Your task to perform on an android device: turn on improve location accuracy Image 0: 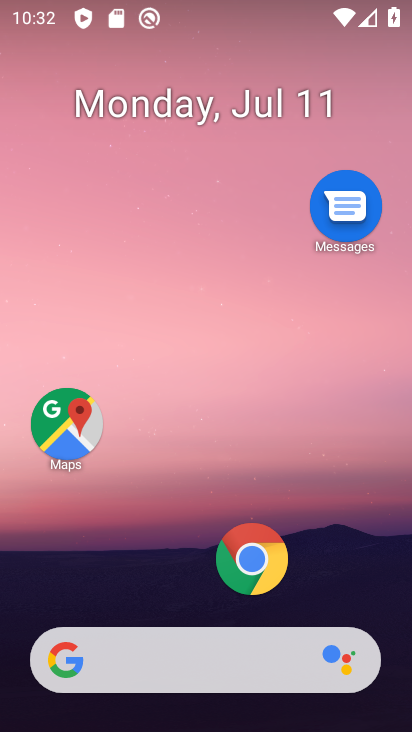
Step 0: drag from (363, 587) to (372, 182)
Your task to perform on an android device: turn on improve location accuracy Image 1: 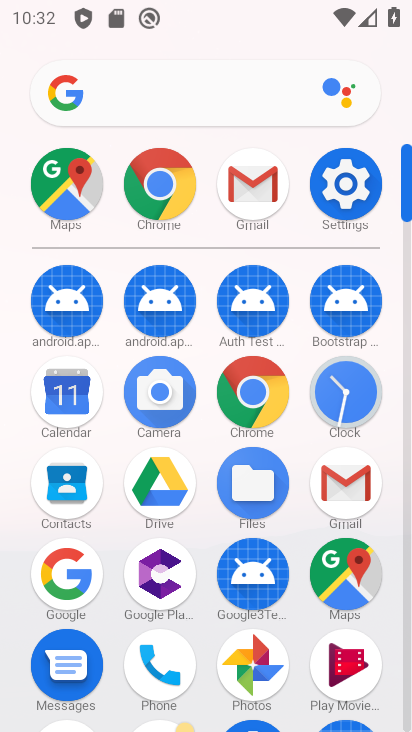
Step 1: click (350, 185)
Your task to perform on an android device: turn on improve location accuracy Image 2: 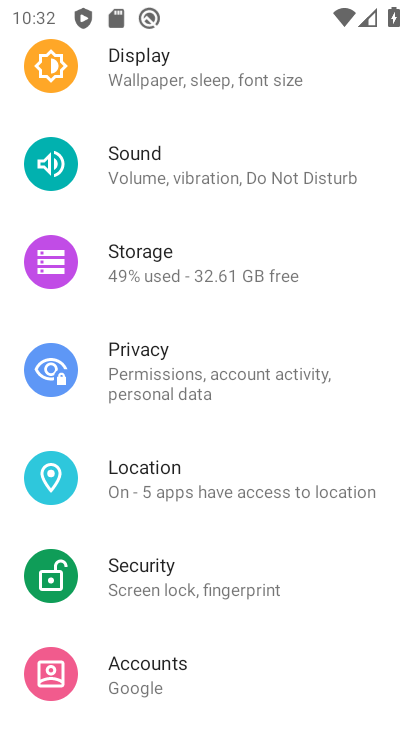
Step 2: drag from (351, 256) to (354, 357)
Your task to perform on an android device: turn on improve location accuracy Image 3: 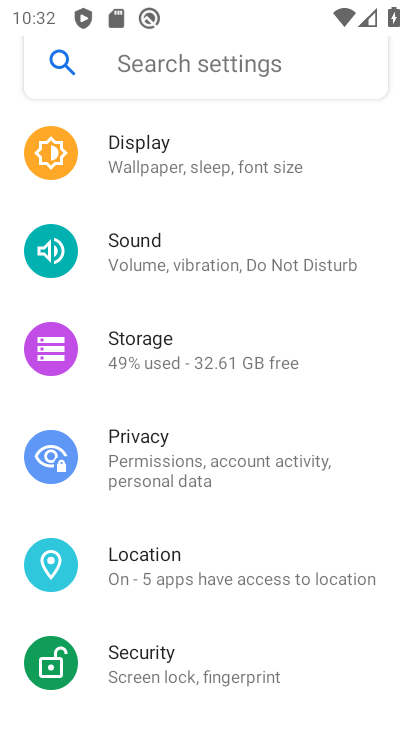
Step 3: drag from (351, 282) to (358, 383)
Your task to perform on an android device: turn on improve location accuracy Image 4: 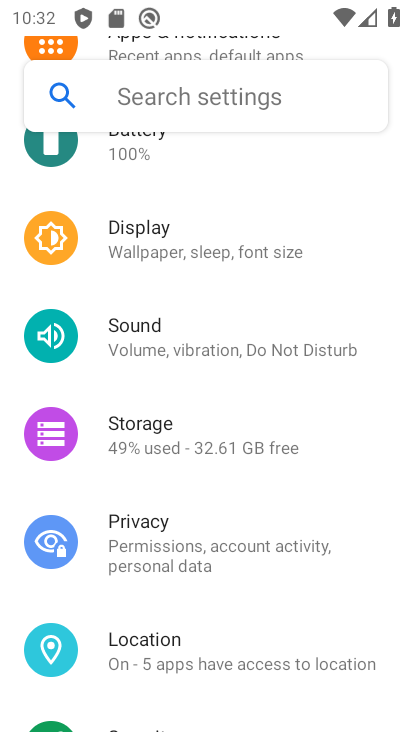
Step 4: drag from (349, 297) to (346, 426)
Your task to perform on an android device: turn on improve location accuracy Image 5: 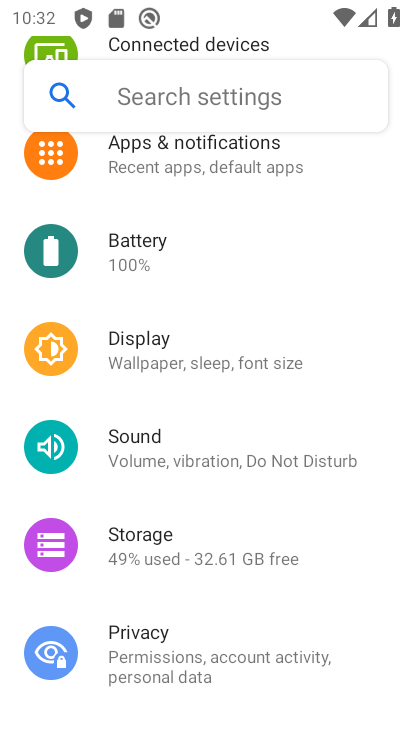
Step 5: drag from (324, 344) to (326, 453)
Your task to perform on an android device: turn on improve location accuracy Image 6: 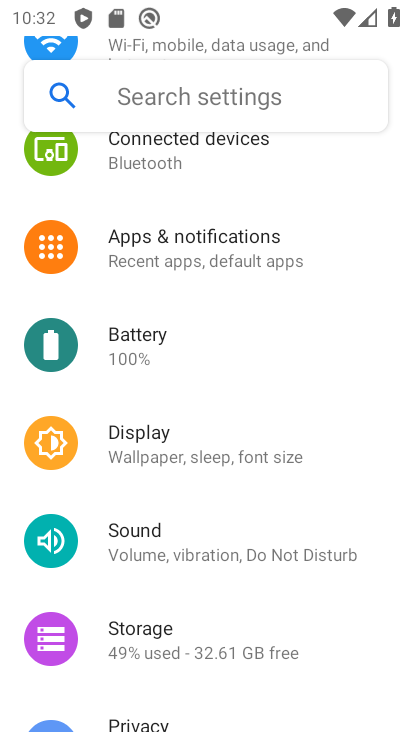
Step 6: drag from (322, 341) to (335, 584)
Your task to perform on an android device: turn on improve location accuracy Image 7: 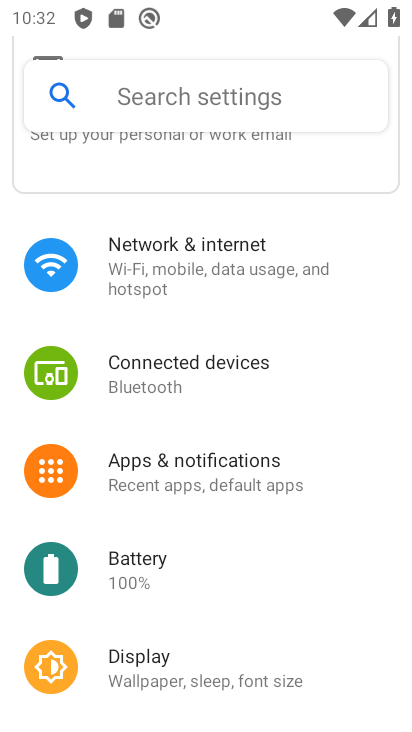
Step 7: drag from (337, 356) to (351, 548)
Your task to perform on an android device: turn on improve location accuracy Image 8: 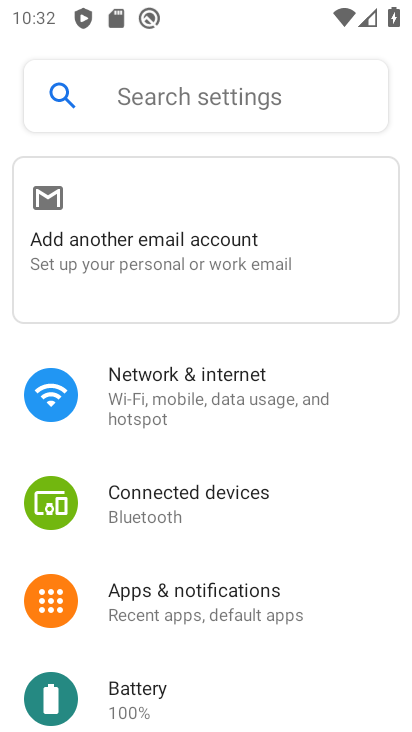
Step 8: drag from (336, 388) to (329, 514)
Your task to perform on an android device: turn on improve location accuracy Image 9: 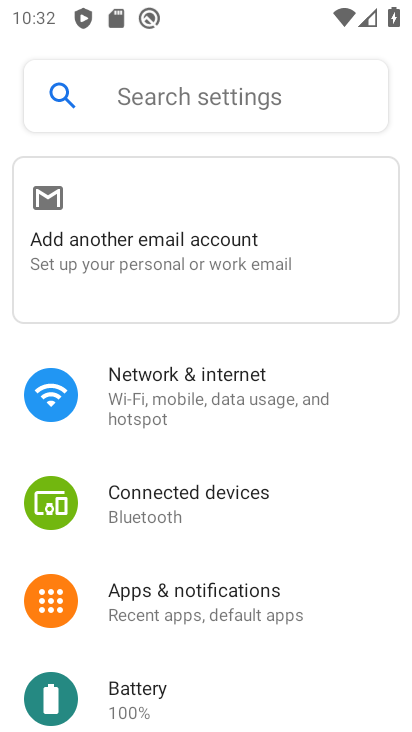
Step 9: drag from (323, 565) to (327, 431)
Your task to perform on an android device: turn on improve location accuracy Image 10: 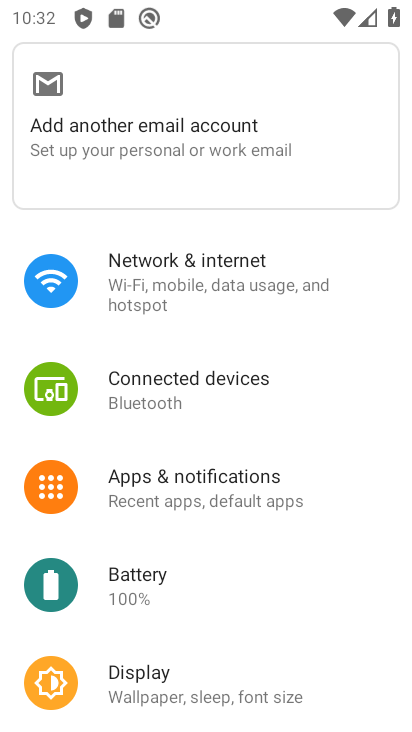
Step 10: drag from (320, 576) to (337, 433)
Your task to perform on an android device: turn on improve location accuracy Image 11: 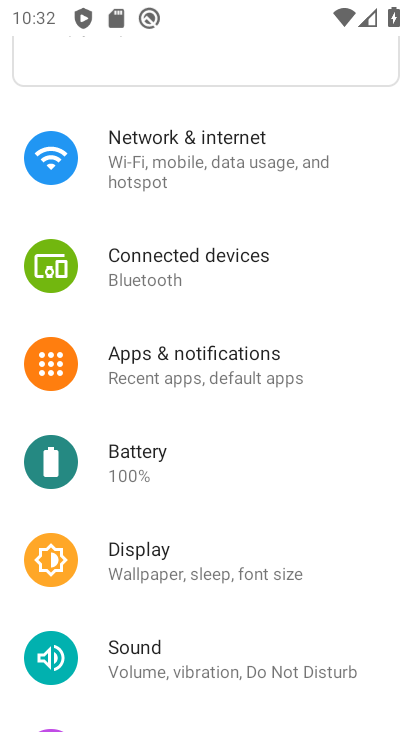
Step 11: drag from (348, 588) to (353, 441)
Your task to perform on an android device: turn on improve location accuracy Image 12: 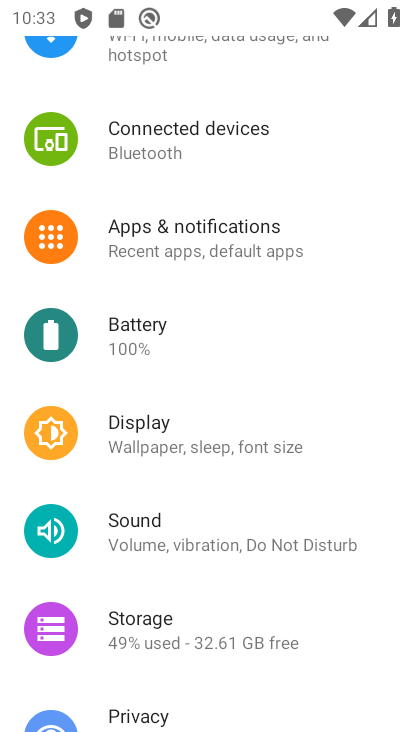
Step 12: drag from (354, 627) to (351, 390)
Your task to perform on an android device: turn on improve location accuracy Image 13: 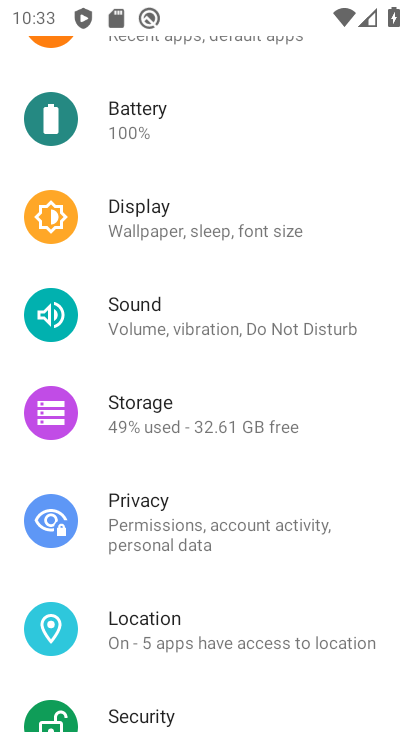
Step 13: click (330, 634)
Your task to perform on an android device: turn on improve location accuracy Image 14: 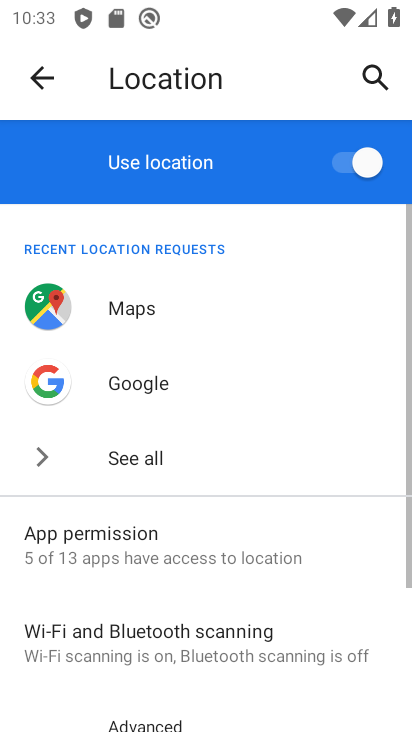
Step 14: drag from (311, 522) to (309, 364)
Your task to perform on an android device: turn on improve location accuracy Image 15: 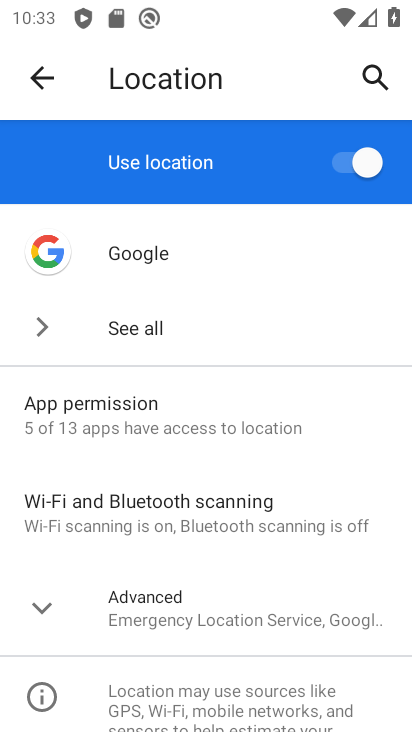
Step 15: drag from (308, 549) to (310, 389)
Your task to perform on an android device: turn on improve location accuracy Image 16: 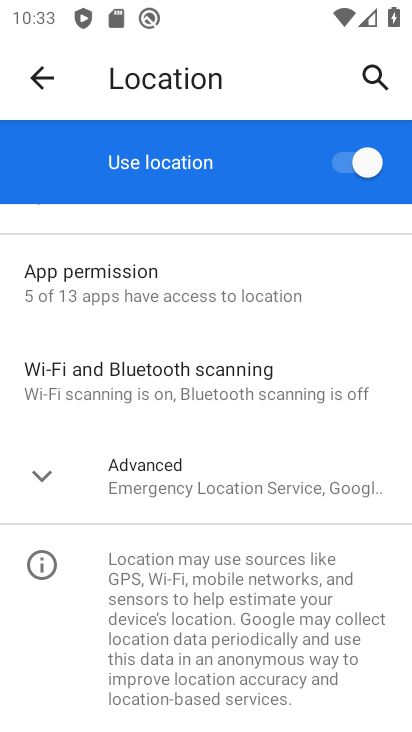
Step 16: click (302, 478)
Your task to perform on an android device: turn on improve location accuracy Image 17: 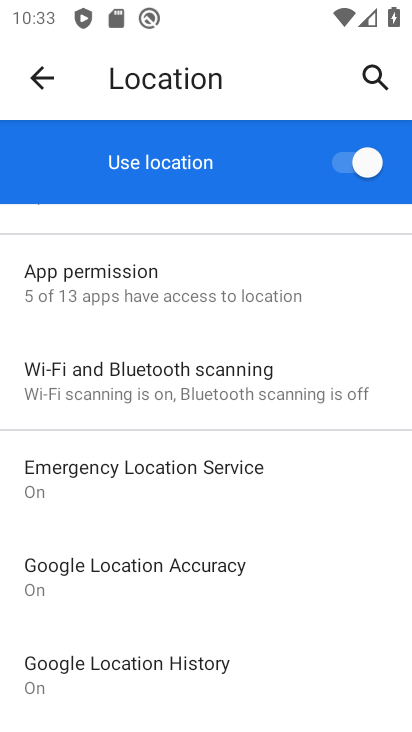
Step 17: drag from (308, 545) to (313, 385)
Your task to perform on an android device: turn on improve location accuracy Image 18: 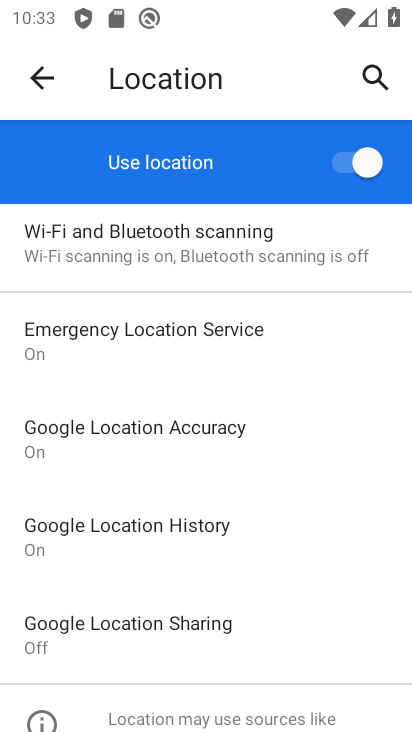
Step 18: click (238, 430)
Your task to perform on an android device: turn on improve location accuracy Image 19: 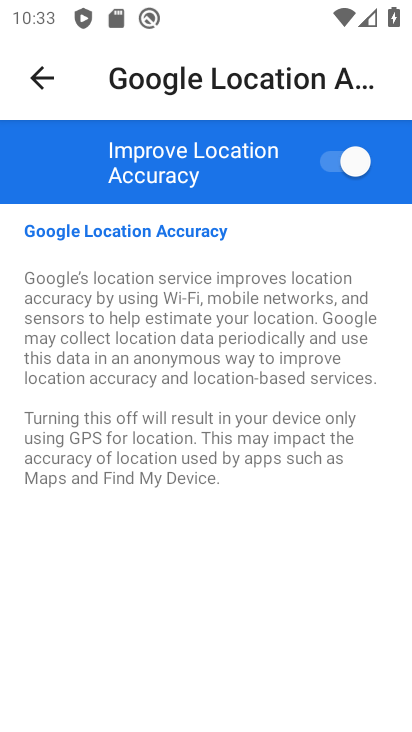
Step 19: task complete